Your task to perform on an android device: change alarm snooze length Image 0: 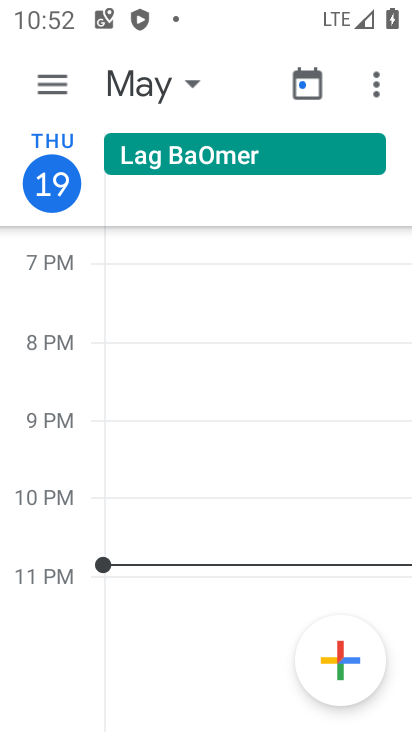
Step 0: press home button
Your task to perform on an android device: change alarm snooze length Image 1: 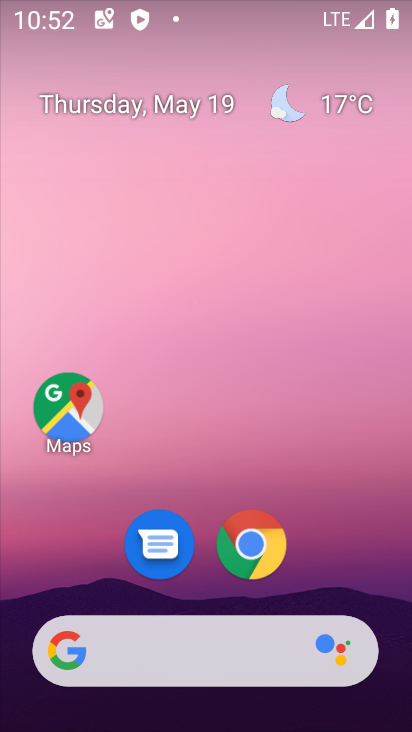
Step 1: drag from (217, 716) to (297, 6)
Your task to perform on an android device: change alarm snooze length Image 2: 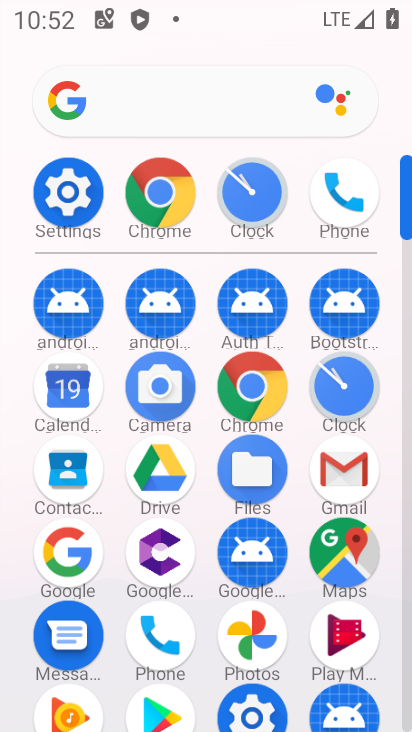
Step 2: click (258, 195)
Your task to perform on an android device: change alarm snooze length Image 3: 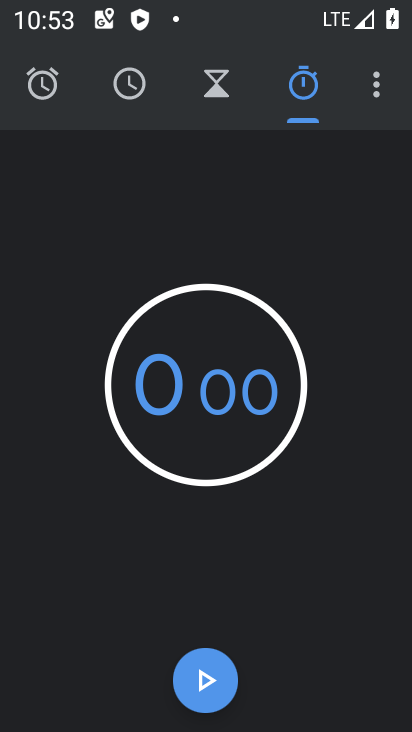
Step 3: click (377, 80)
Your task to perform on an android device: change alarm snooze length Image 4: 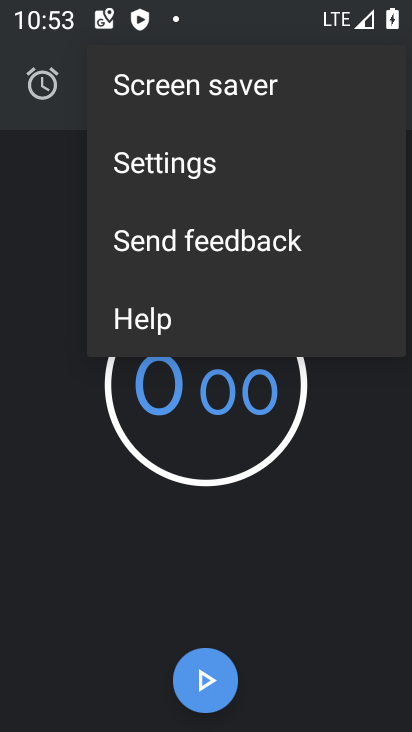
Step 4: click (216, 165)
Your task to perform on an android device: change alarm snooze length Image 5: 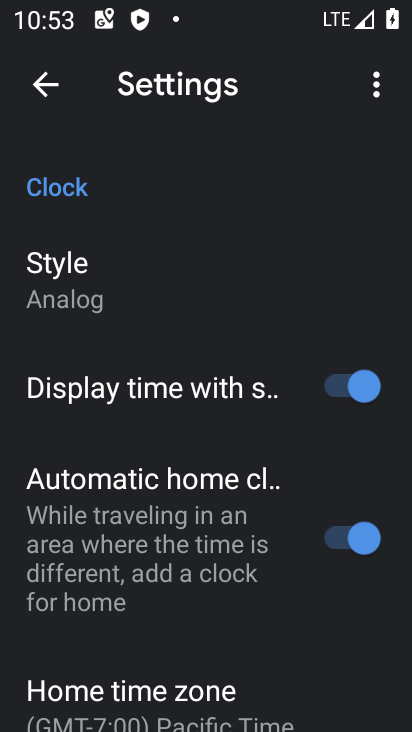
Step 5: drag from (204, 569) to (184, 93)
Your task to perform on an android device: change alarm snooze length Image 6: 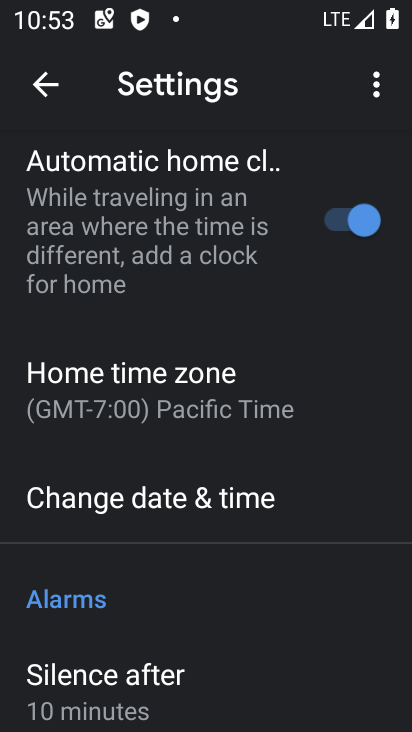
Step 6: drag from (174, 707) to (162, 251)
Your task to perform on an android device: change alarm snooze length Image 7: 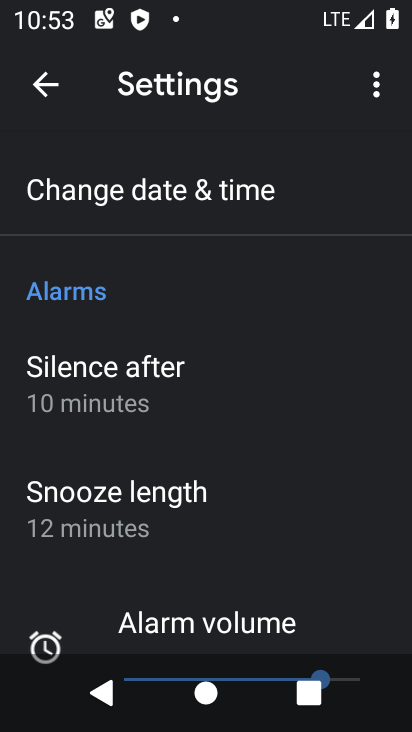
Step 7: click (154, 494)
Your task to perform on an android device: change alarm snooze length Image 8: 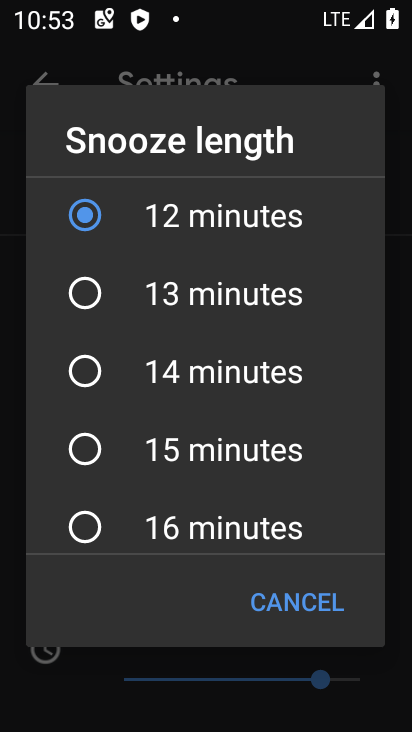
Step 8: click (240, 467)
Your task to perform on an android device: change alarm snooze length Image 9: 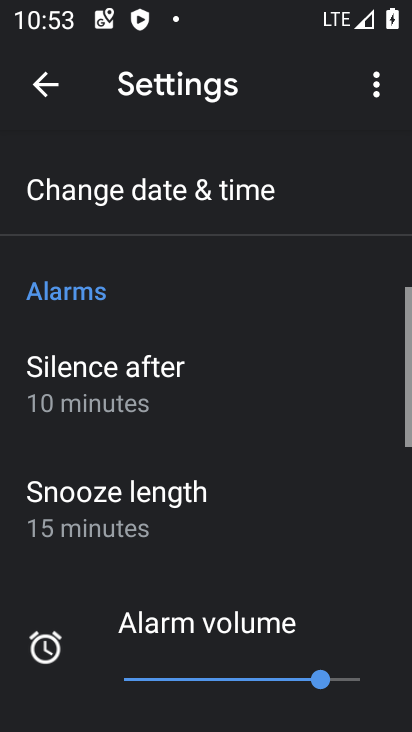
Step 9: task complete